Your task to perform on an android device: star an email in the gmail app Image 0: 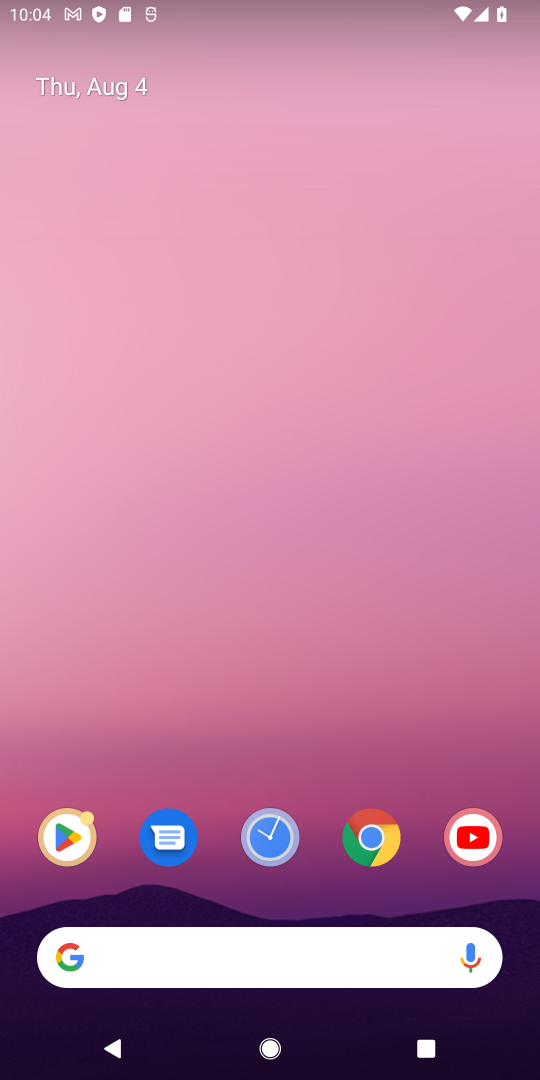
Step 0: drag from (274, 829) to (270, 29)
Your task to perform on an android device: star an email in the gmail app Image 1: 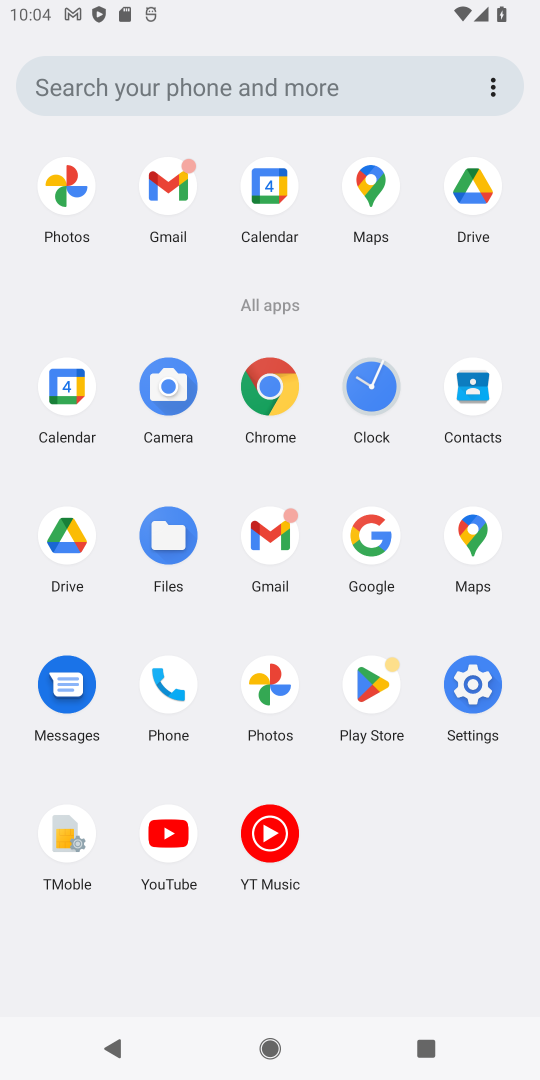
Step 1: click (263, 533)
Your task to perform on an android device: star an email in the gmail app Image 2: 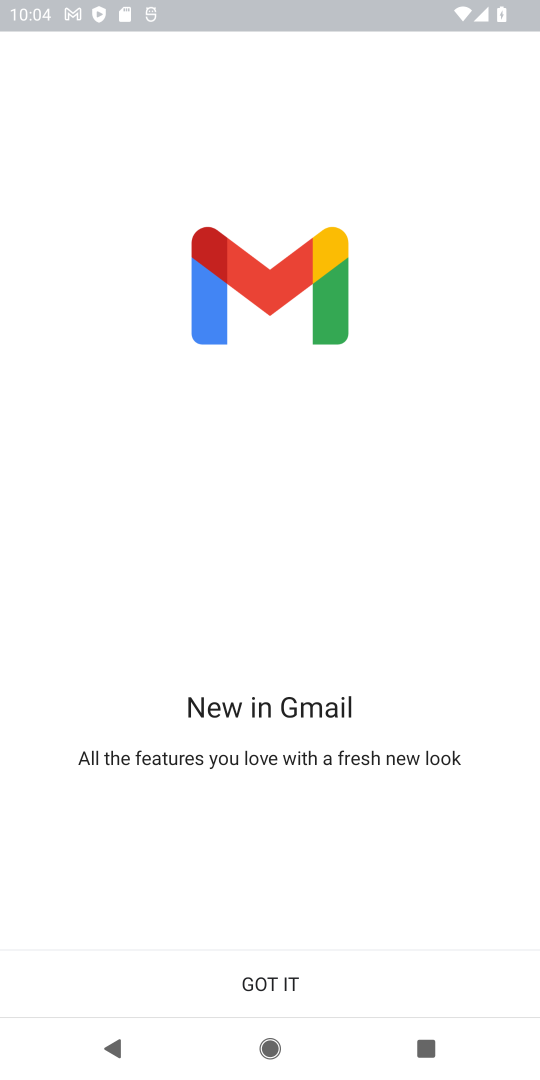
Step 2: click (296, 987)
Your task to perform on an android device: star an email in the gmail app Image 3: 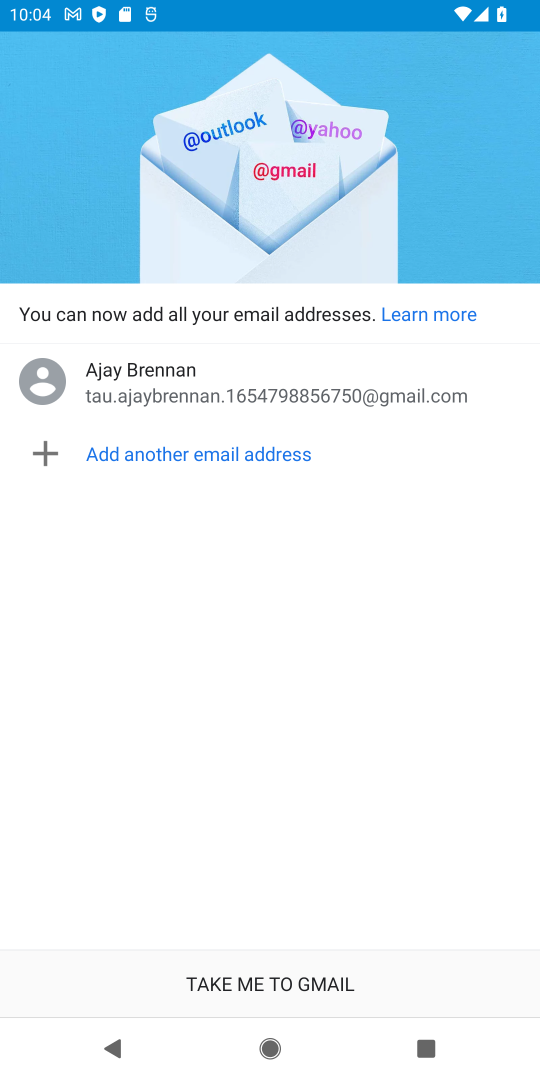
Step 3: click (296, 987)
Your task to perform on an android device: star an email in the gmail app Image 4: 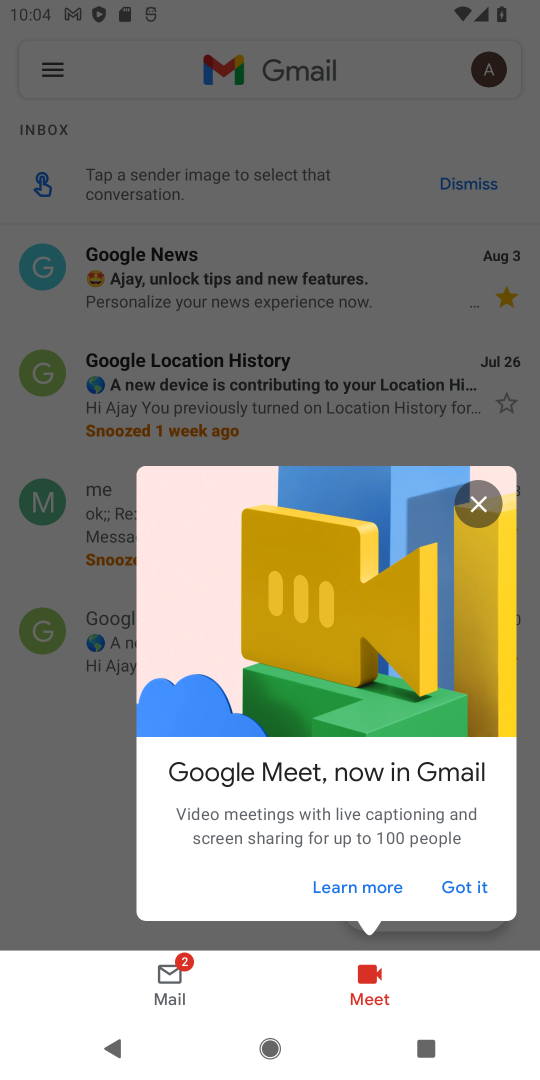
Step 4: click (58, 66)
Your task to perform on an android device: star an email in the gmail app Image 5: 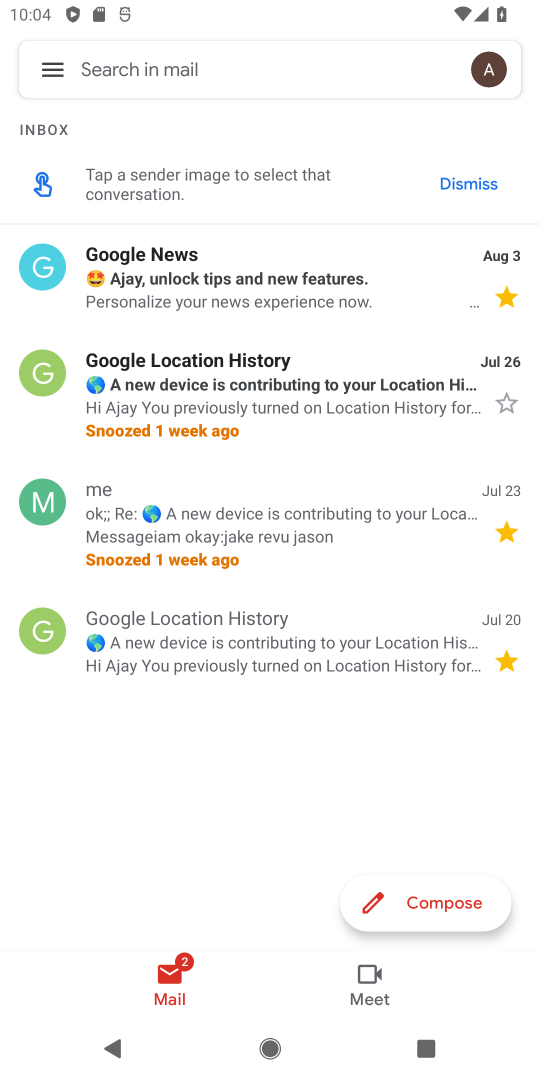
Step 5: click (57, 74)
Your task to perform on an android device: star an email in the gmail app Image 6: 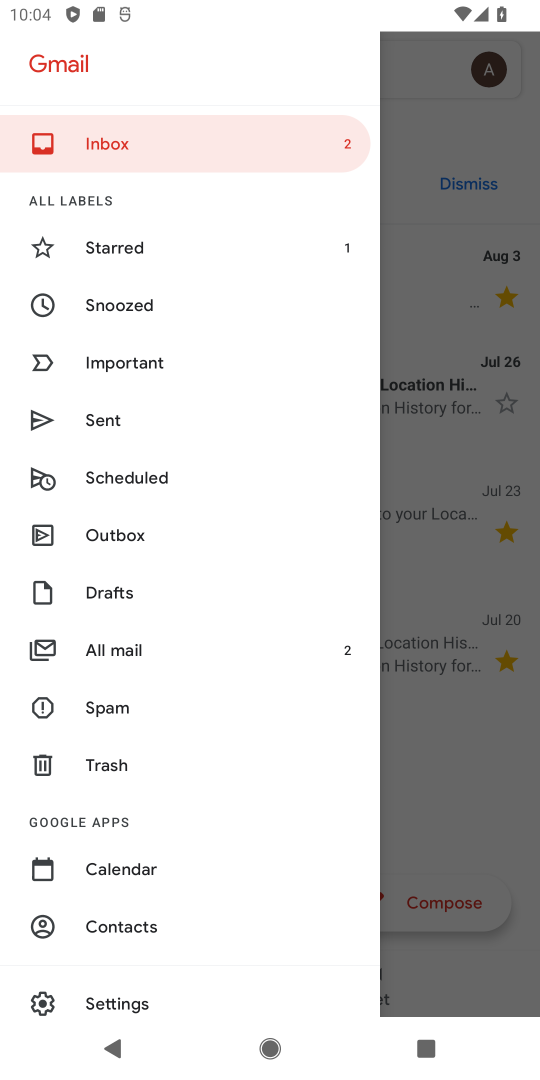
Step 6: click (125, 253)
Your task to perform on an android device: star an email in the gmail app Image 7: 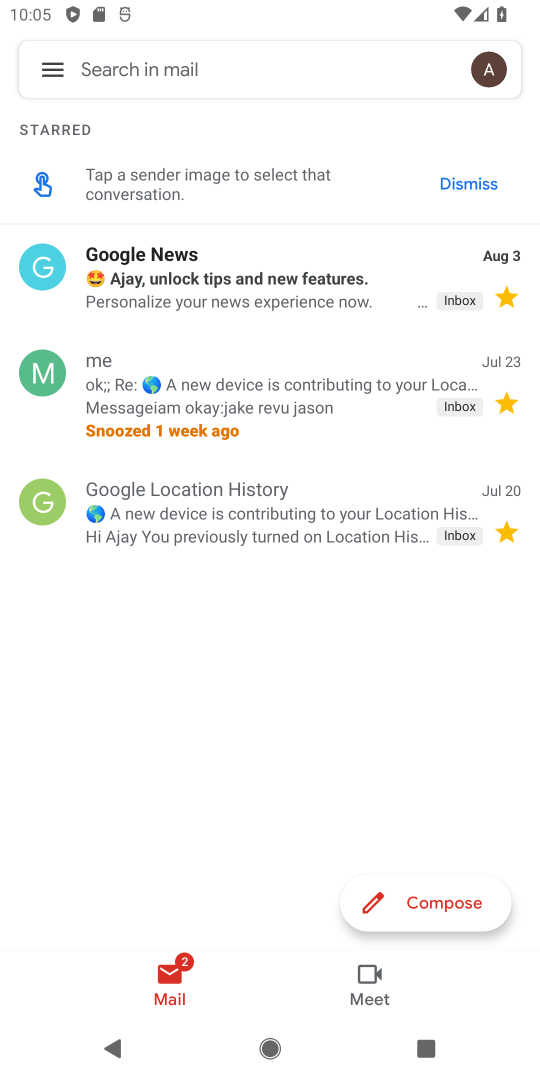
Step 7: task complete